Your task to perform on an android device: Go to Google Image 0: 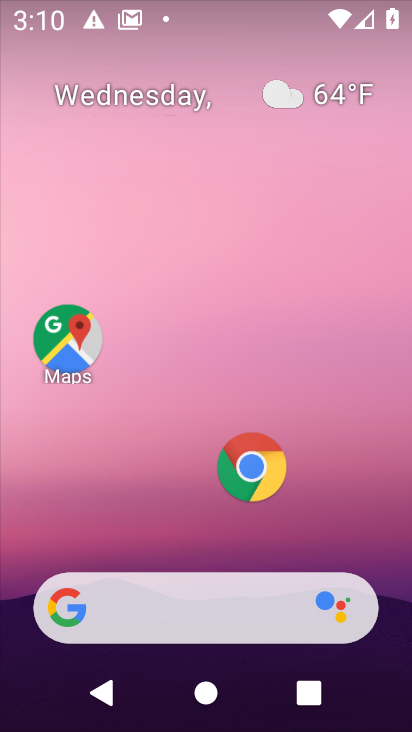
Step 0: drag from (142, 505) to (162, 197)
Your task to perform on an android device: Go to Google Image 1: 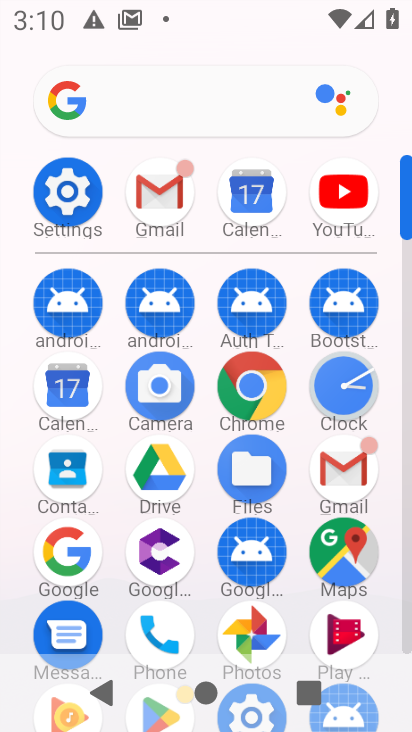
Step 1: click (153, 108)
Your task to perform on an android device: Go to Google Image 2: 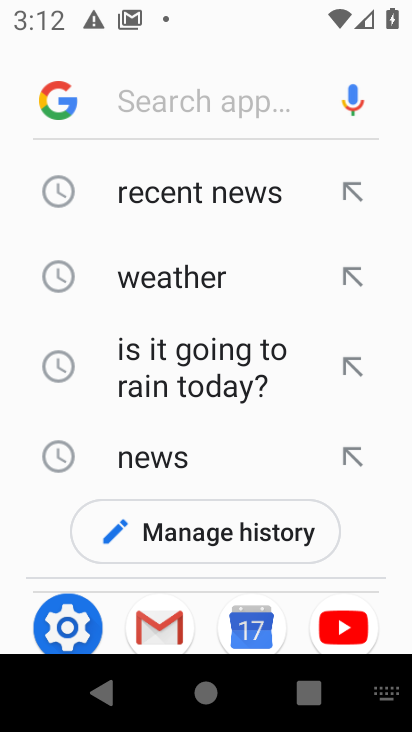
Step 2: task complete